Your task to perform on an android device: Go to eBay Image 0: 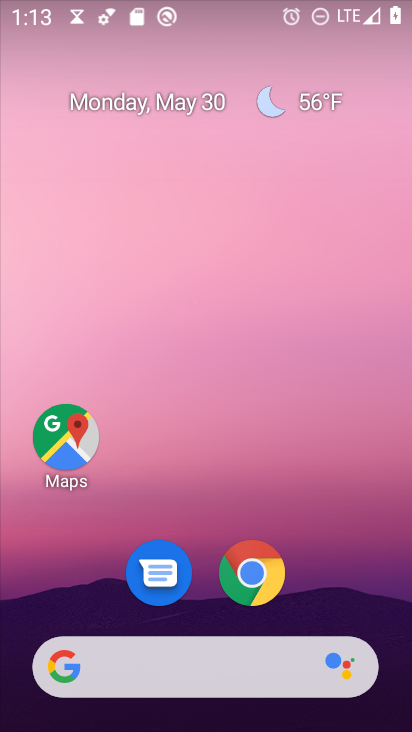
Step 0: drag from (315, 666) to (237, 132)
Your task to perform on an android device: Go to eBay Image 1: 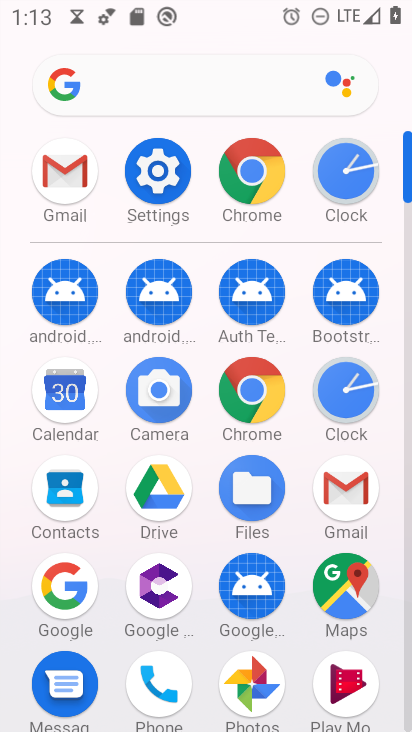
Step 1: click (270, 393)
Your task to perform on an android device: Go to eBay Image 2: 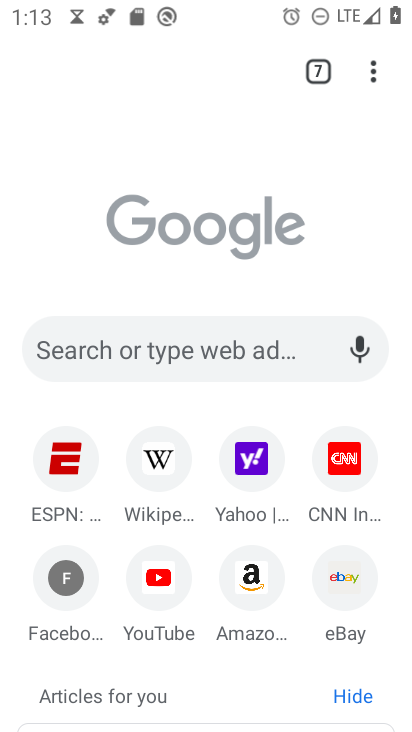
Step 2: click (368, 582)
Your task to perform on an android device: Go to eBay Image 3: 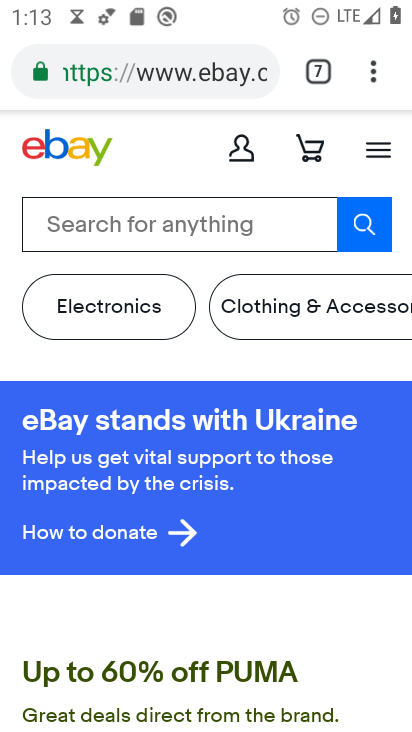
Step 3: task complete